Your task to perform on an android device: see creations saved in the google photos Image 0: 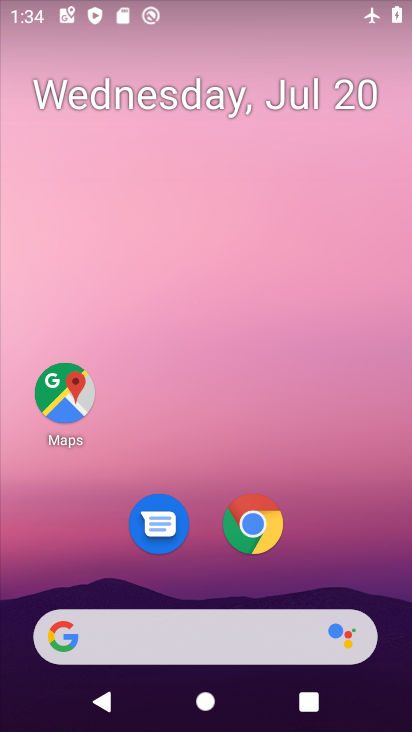
Step 0: drag from (339, 540) to (306, 0)
Your task to perform on an android device: see creations saved in the google photos Image 1: 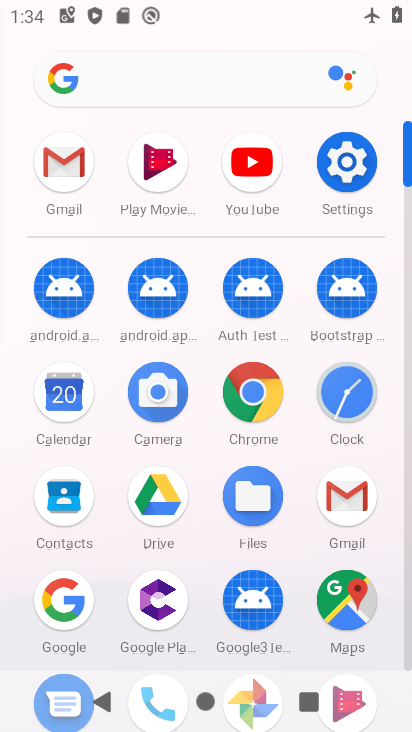
Step 1: drag from (278, 543) to (254, 218)
Your task to perform on an android device: see creations saved in the google photos Image 2: 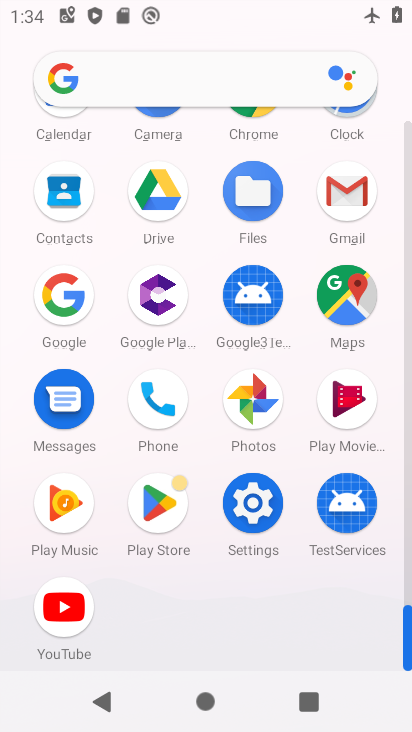
Step 2: click (262, 391)
Your task to perform on an android device: see creations saved in the google photos Image 3: 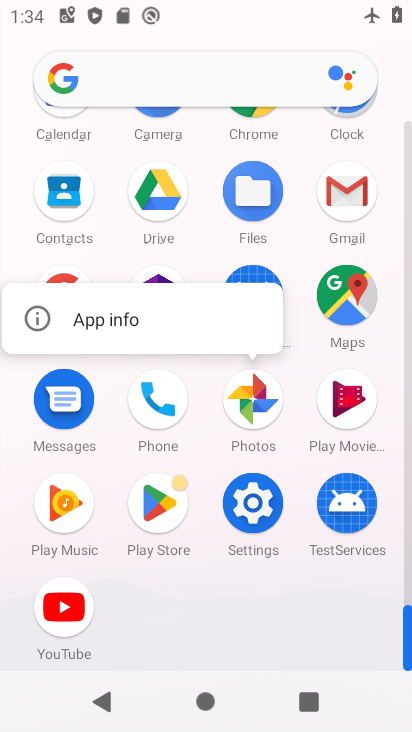
Step 3: click (262, 393)
Your task to perform on an android device: see creations saved in the google photos Image 4: 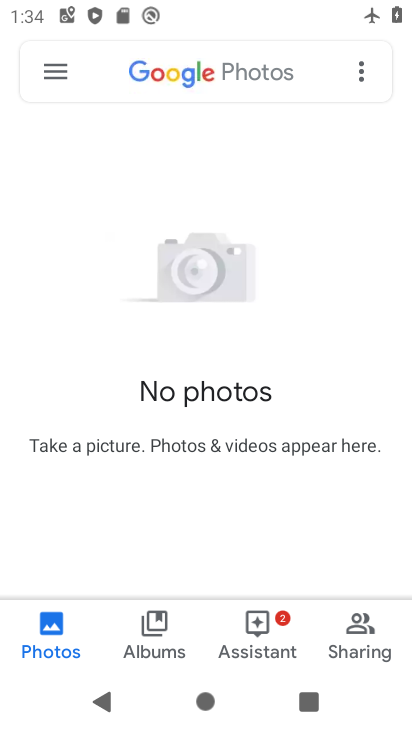
Step 4: click (233, 74)
Your task to perform on an android device: see creations saved in the google photos Image 5: 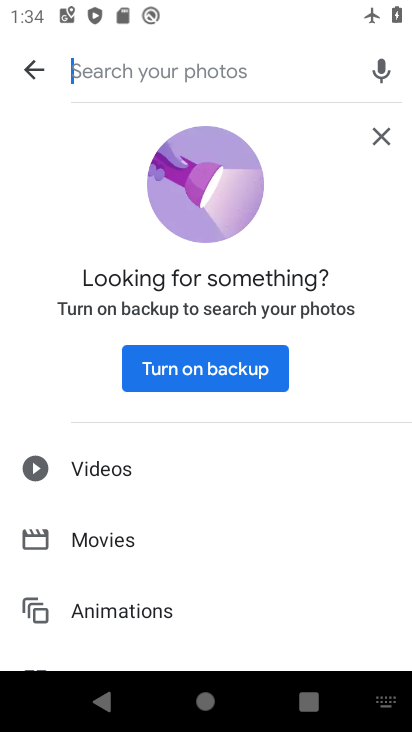
Step 5: drag from (152, 506) to (164, 219)
Your task to perform on an android device: see creations saved in the google photos Image 6: 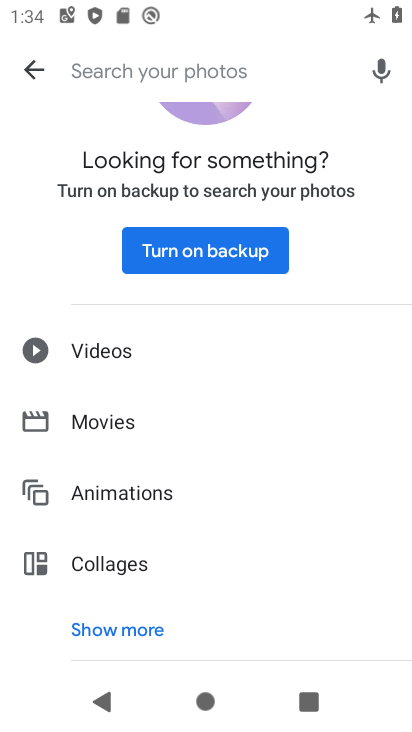
Step 6: click (128, 614)
Your task to perform on an android device: see creations saved in the google photos Image 7: 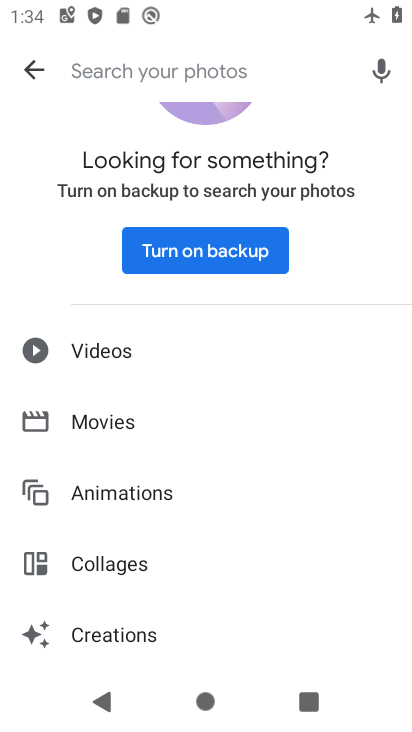
Step 7: drag from (256, 475) to (225, 258)
Your task to perform on an android device: see creations saved in the google photos Image 8: 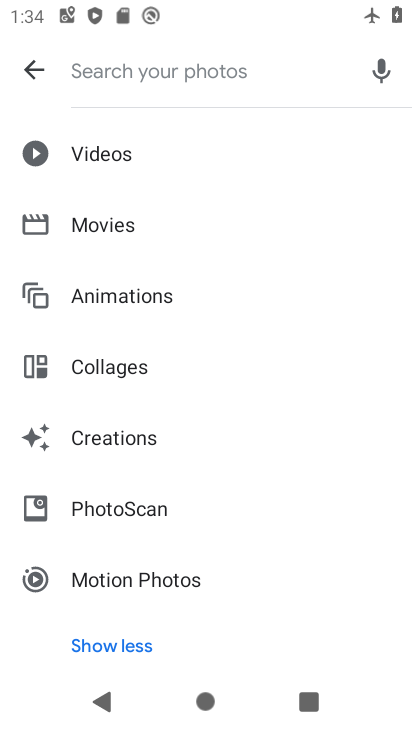
Step 8: click (142, 429)
Your task to perform on an android device: see creations saved in the google photos Image 9: 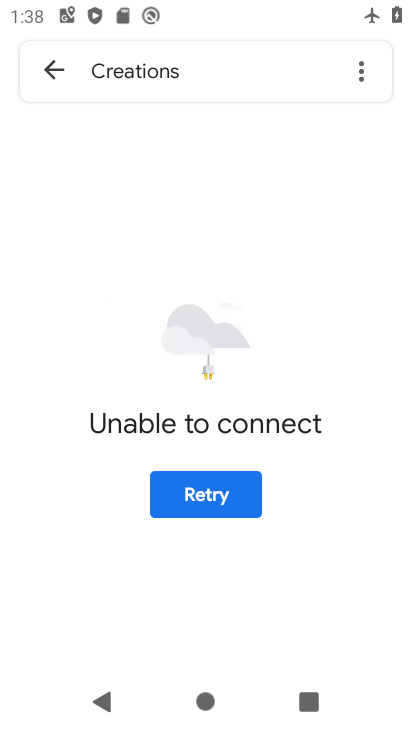
Step 9: task complete